Your task to perform on an android device: add a contact Image 0: 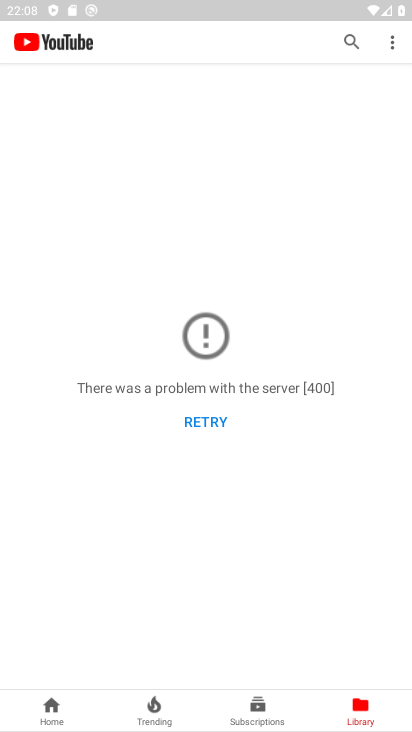
Step 0: press home button
Your task to perform on an android device: add a contact Image 1: 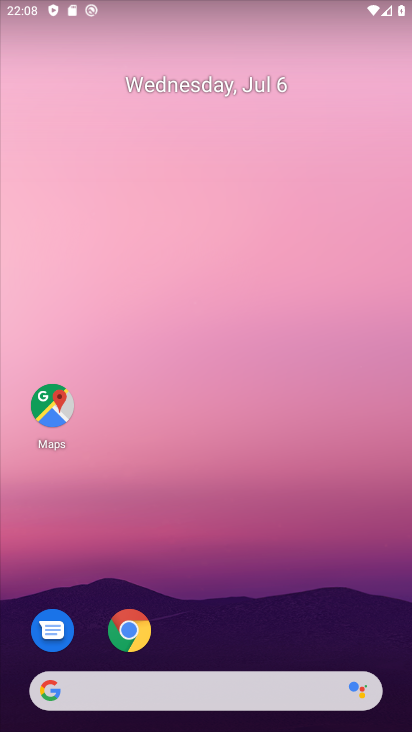
Step 1: drag from (356, 601) to (320, 93)
Your task to perform on an android device: add a contact Image 2: 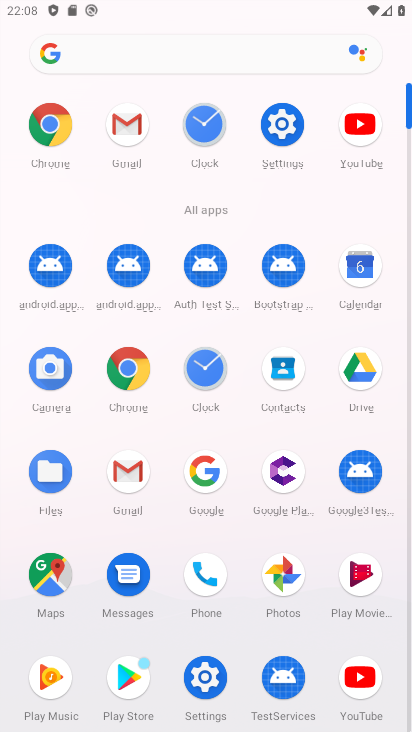
Step 2: drag from (242, 235) to (237, 172)
Your task to perform on an android device: add a contact Image 3: 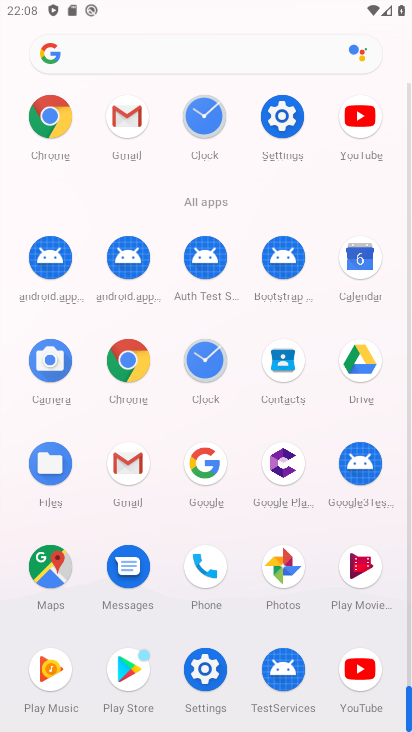
Step 3: click (288, 361)
Your task to perform on an android device: add a contact Image 4: 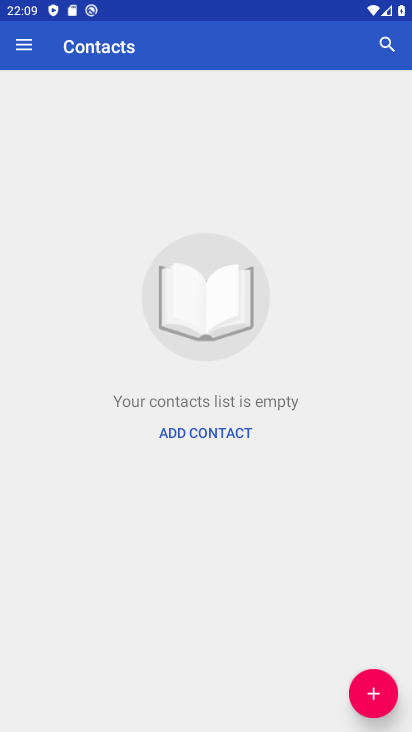
Step 4: click (379, 701)
Your task to perform on an android device: add a contact Image 5: 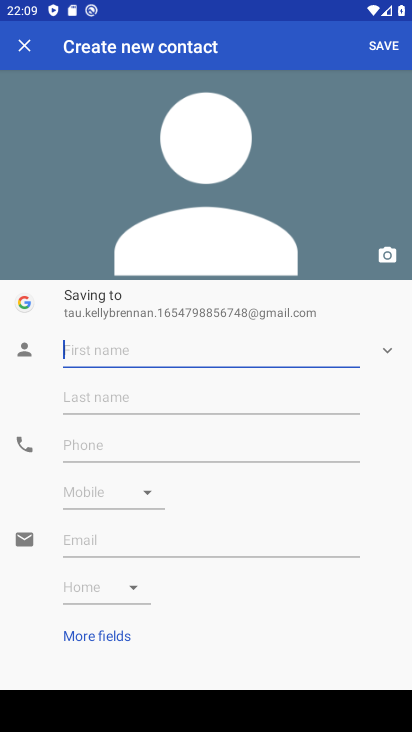
Step 5: type "gggg"
Your task to perform on an android device: add a contact Image 6: 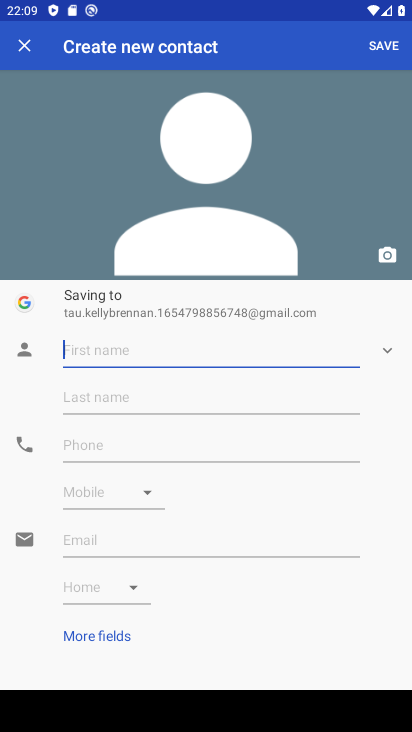
Step 6: click (139, 448)
Your task to perform on an android device: add a contact Image 7: 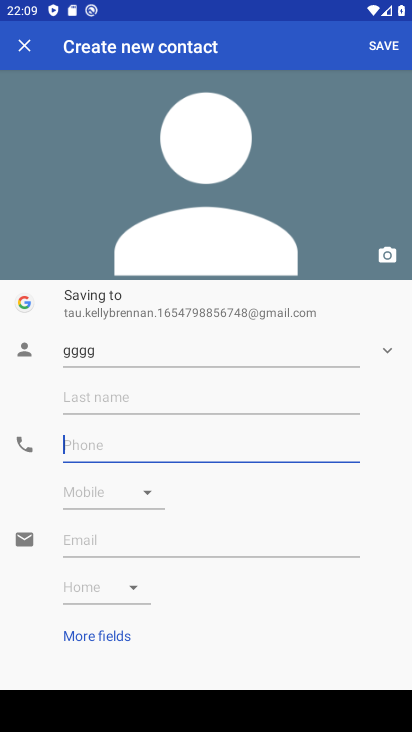
Step 7: type "6666666666"
Your task to perform on an android device: add a contact Image 8: 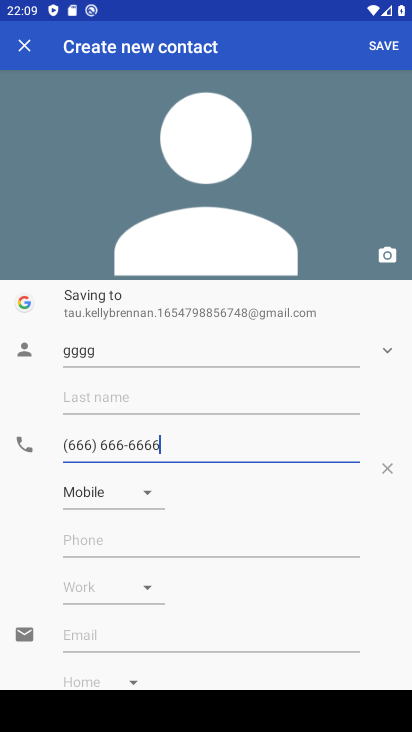
Step 8: type ""
Your task to perform on an android device: add a contact Image 9: 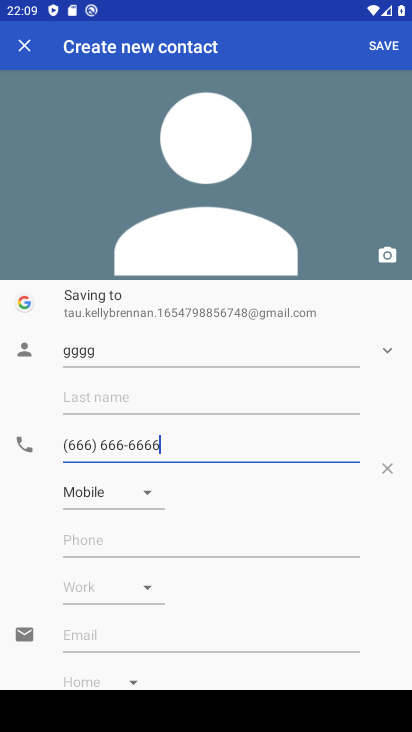
Step 9: click (382, 47)
Your task to perform on an android device: add a contact Image 10: 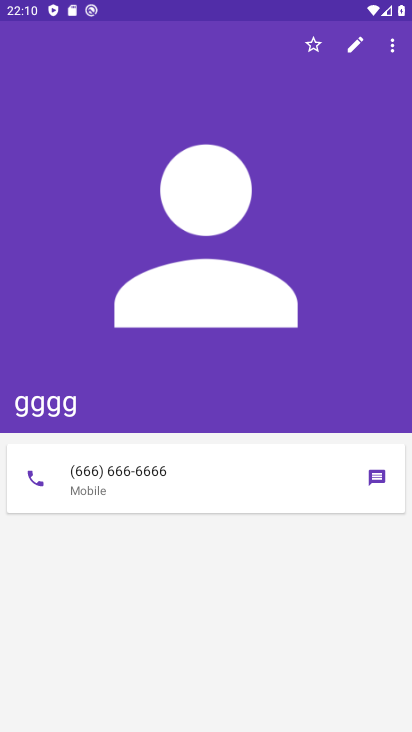
Step 10: task complete